Your task to perform on an android device: Go to notification settings Image 0: 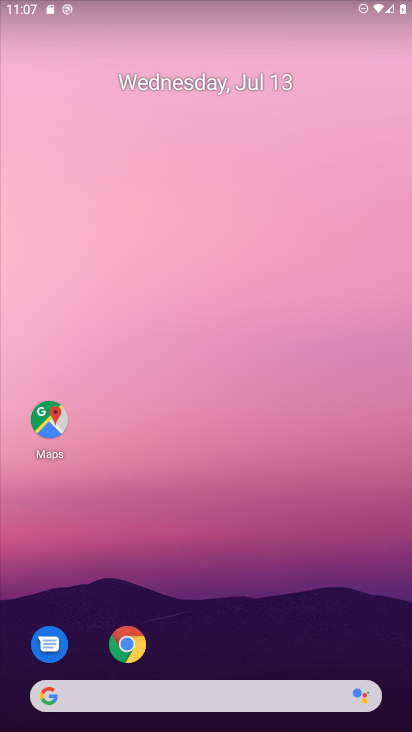
Step 0: drag from (248, 564) to (153, 96)
Your task to perform on an android device: Go to notification settings Image 1: 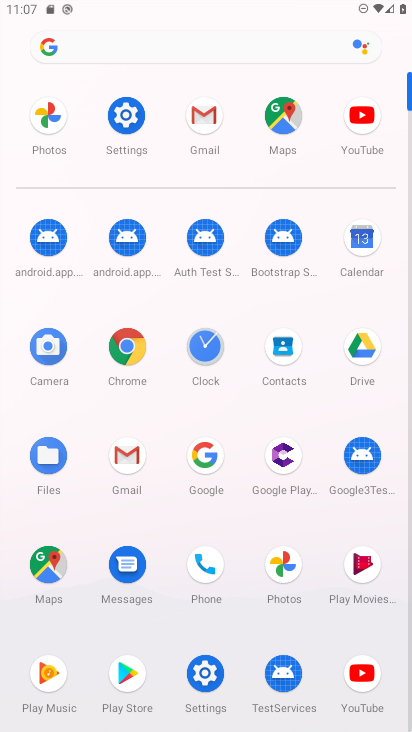
Step 1: click (118, 109)
Your task to perform on an android device: Go to notification settings Image 2: 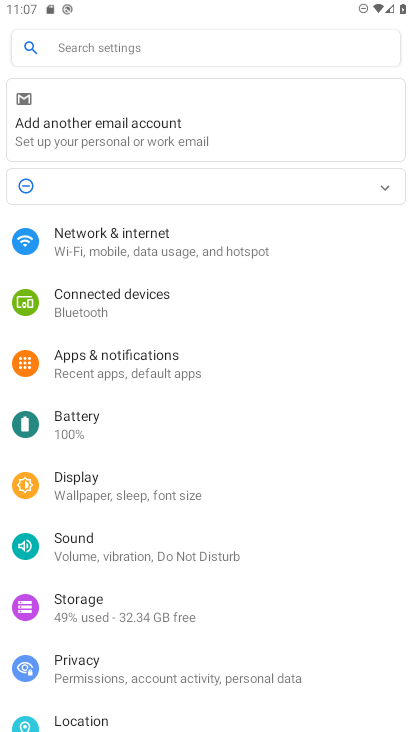
Step 2: click (109, 348)
Your task to perform on an android device: Go to notification settings Image 3: 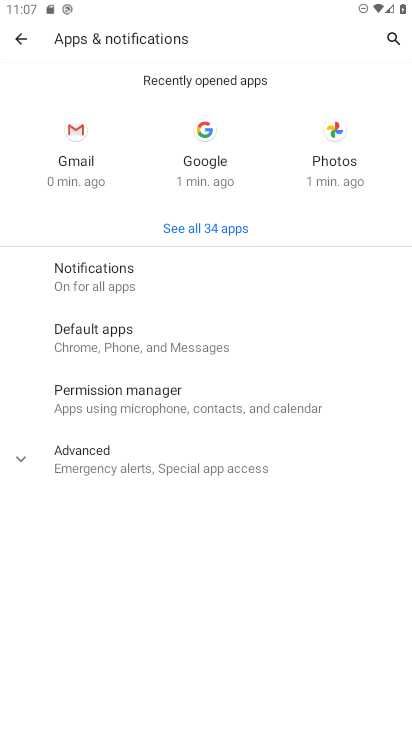
Step 3: click (100, 267)
Your task to perform on an android device: Go to notification settings Image 4: 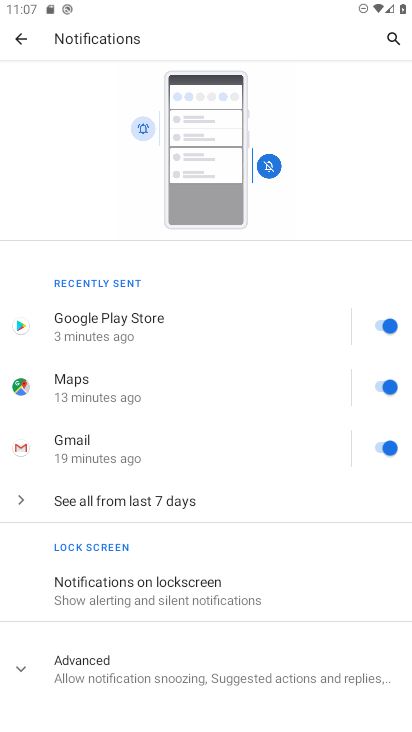
Step 4: task complete